Your task to perform on an android device: Open Reddit.com Image 0: 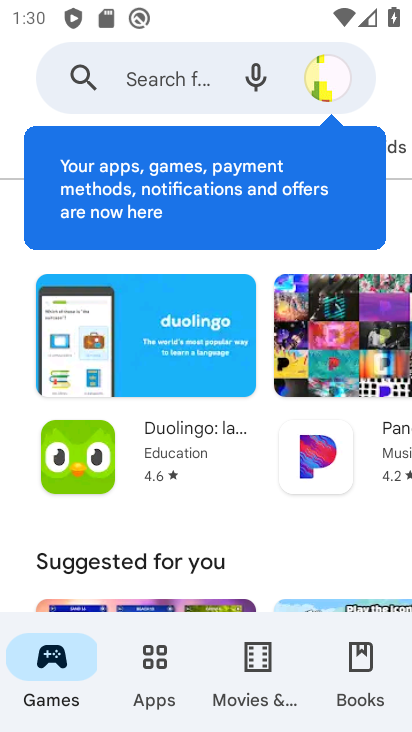
Step 0: press home button
Your task to perform on an android device: Open Reddit.com Image 1: 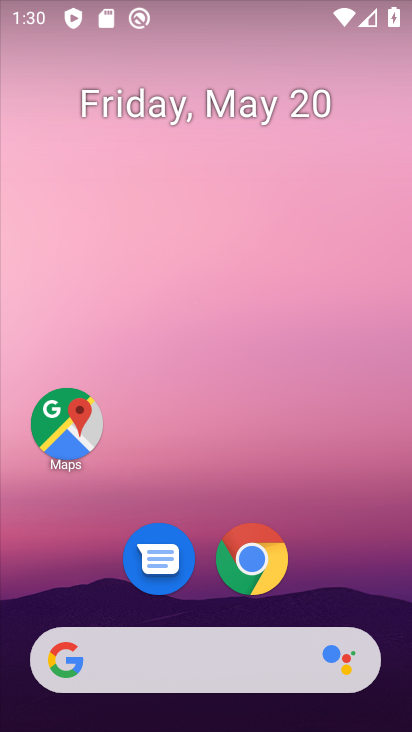
Step 1: click (264, 579)
Your task to perform on an android device: Open Reddit.com Image 2: 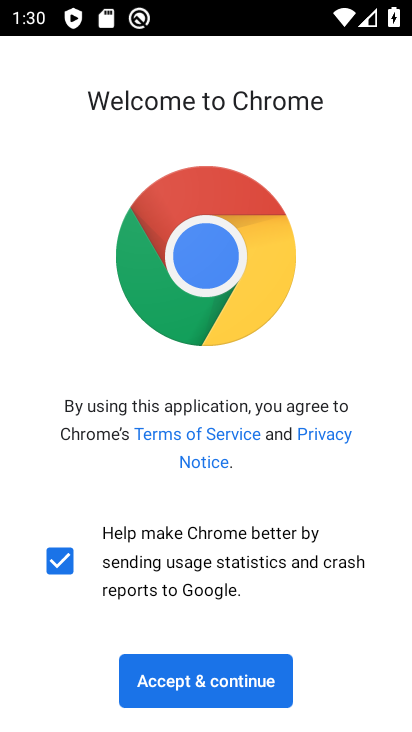
Step 2: click (192, 654)
Your task to perform on an android device: Open Reddit.com Image 3: 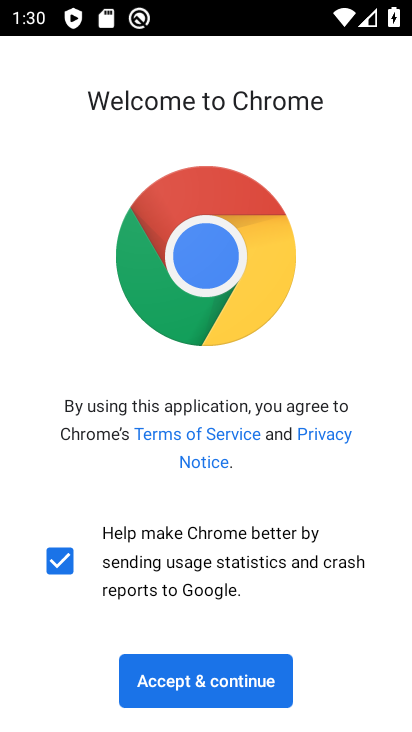
Step 3: click (167, 679)
Your task to perform on an android device: Open Reddit.com Image 4: 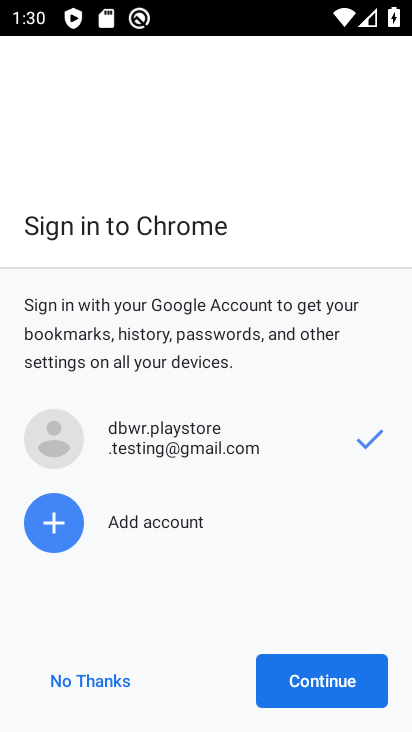
Step 4: click (284, 679)
Your task to perform on an android device: Open Reddit.com Image 5: 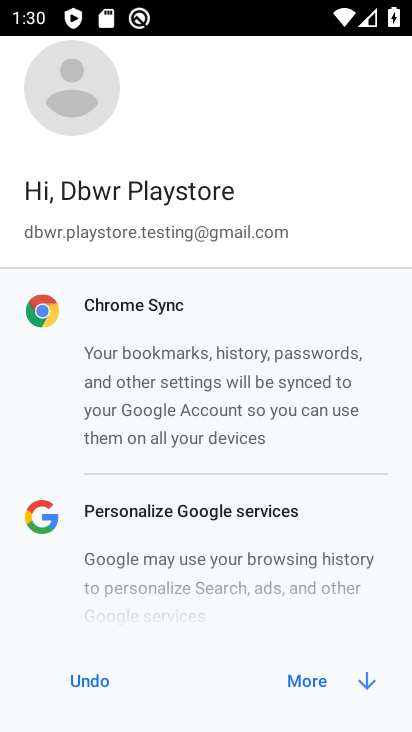
Step 5: click (291, 675)
Your task to perform on an android device: Open Reddit.com Image 6: 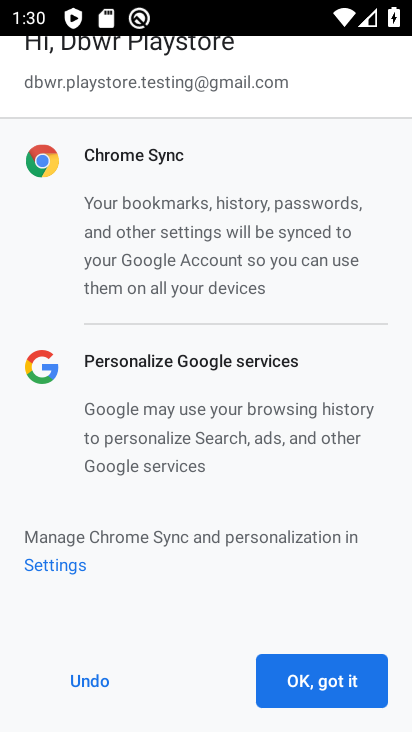
Step 6: click (293, 676)
Your task to perform on an android device: Open Reddit.com Image 7: 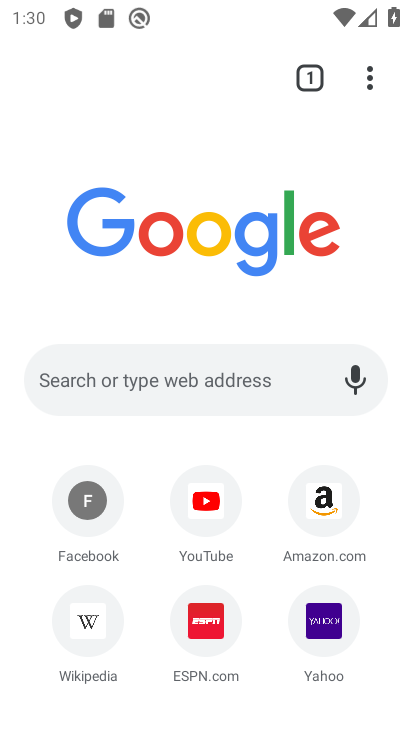
Step 7: click (157, 366)
Your task to perform on an android device: Open Reddit.com Image 8: 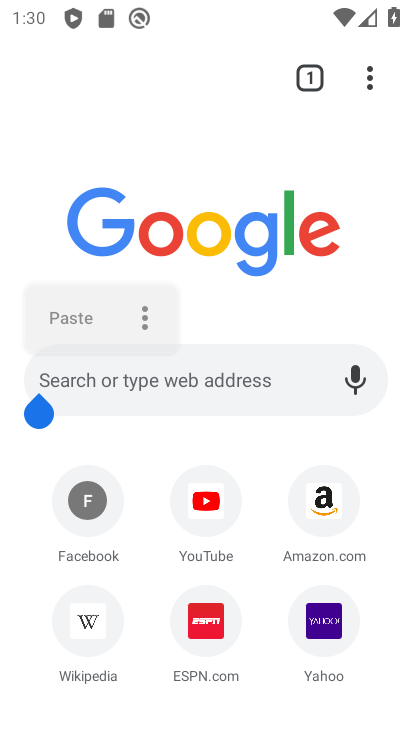
Step 8: click (157, 366)
Your task to perform on an android device: Open Reddit.com Image 9: 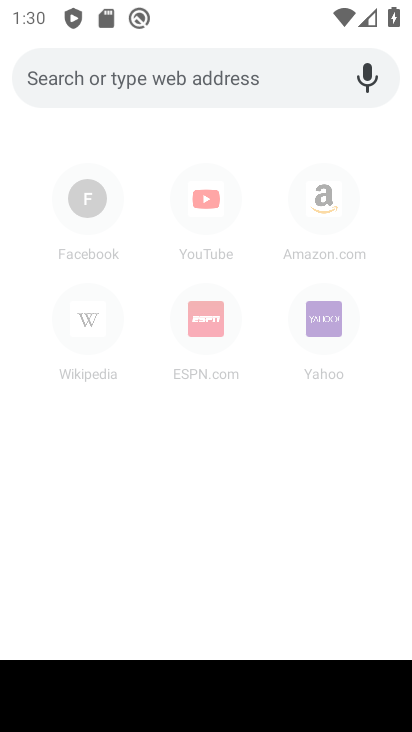
Step 9: type "reddit.com"
Your task to perform on an android device: Open Reddit.com Image 10: 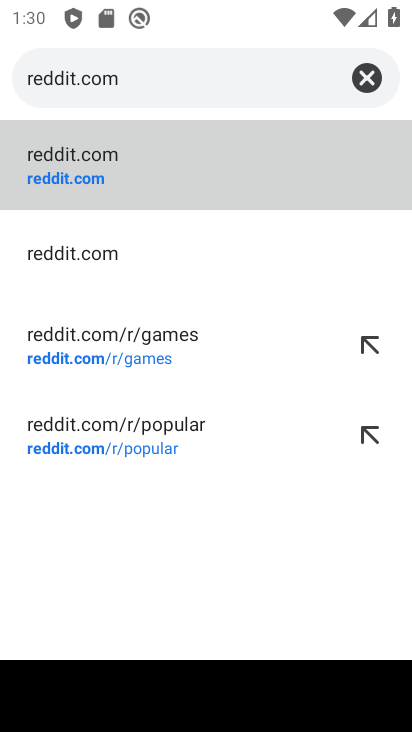
Step 10: click (86, 181)
Your task to perform on an android device: Open Reddit.com Image 11: 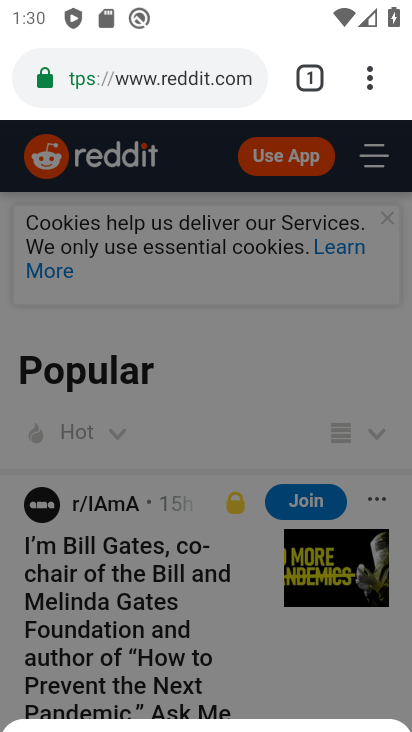
Step 11: task complete